Your task to perform on an android device: What's the weather? Image 0: 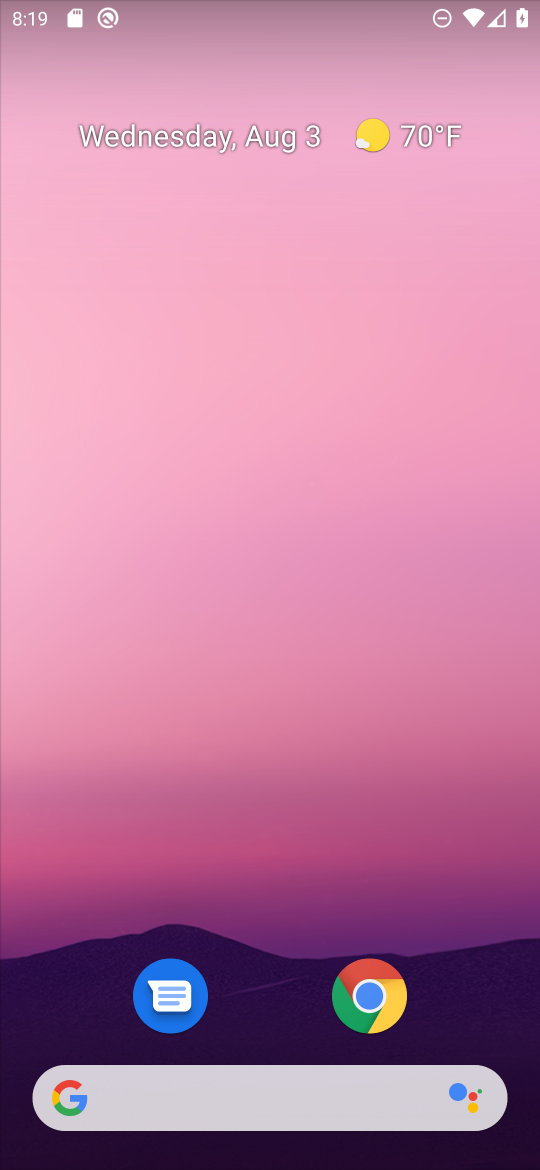
Step 0: click (391, 137)
Your task to perform on an android device: What's the weather? Image 1: 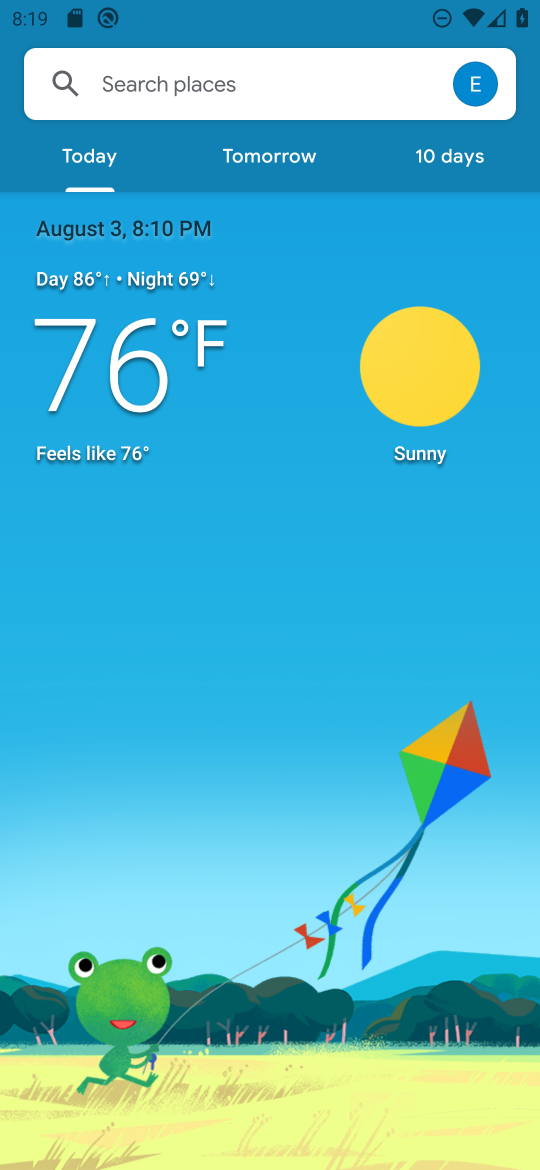
Step 1: task complete